Your task to perform on an android device: Check the weather Image 0: 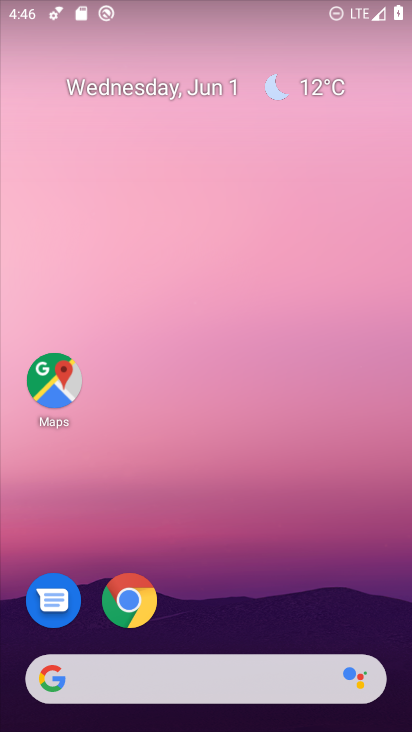
Step 0: click (316, 85)
Your task to perform on an android device: Check the weather Image 1: 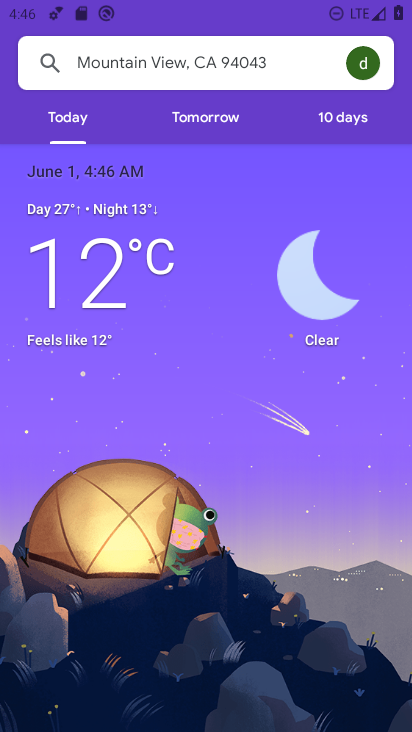
Step 1: task complete